Your task to perform on an android device: Clear the cart on ebay.com. Image 0: 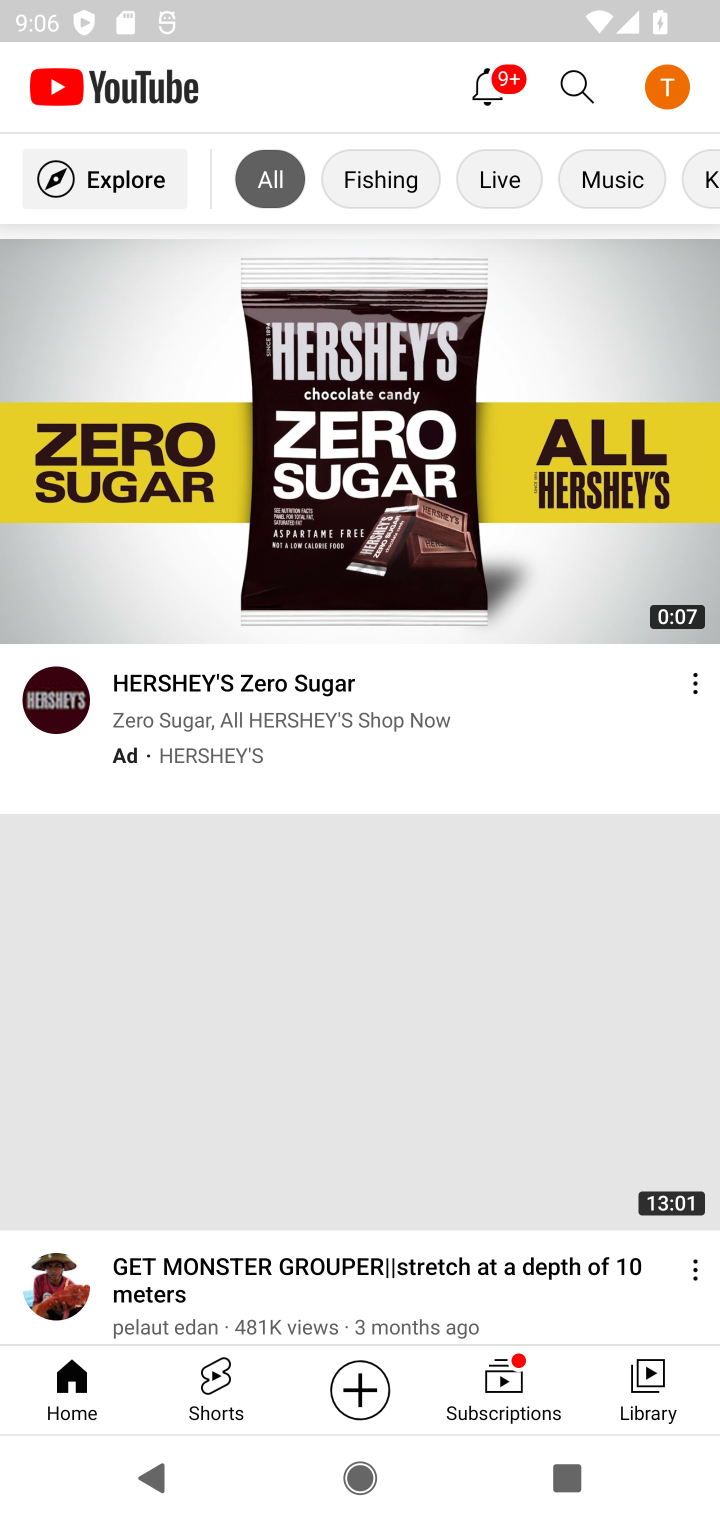
Step 0: press home button
Your task to perform on an android device: Clear the cart on ebay.com. Image 1: 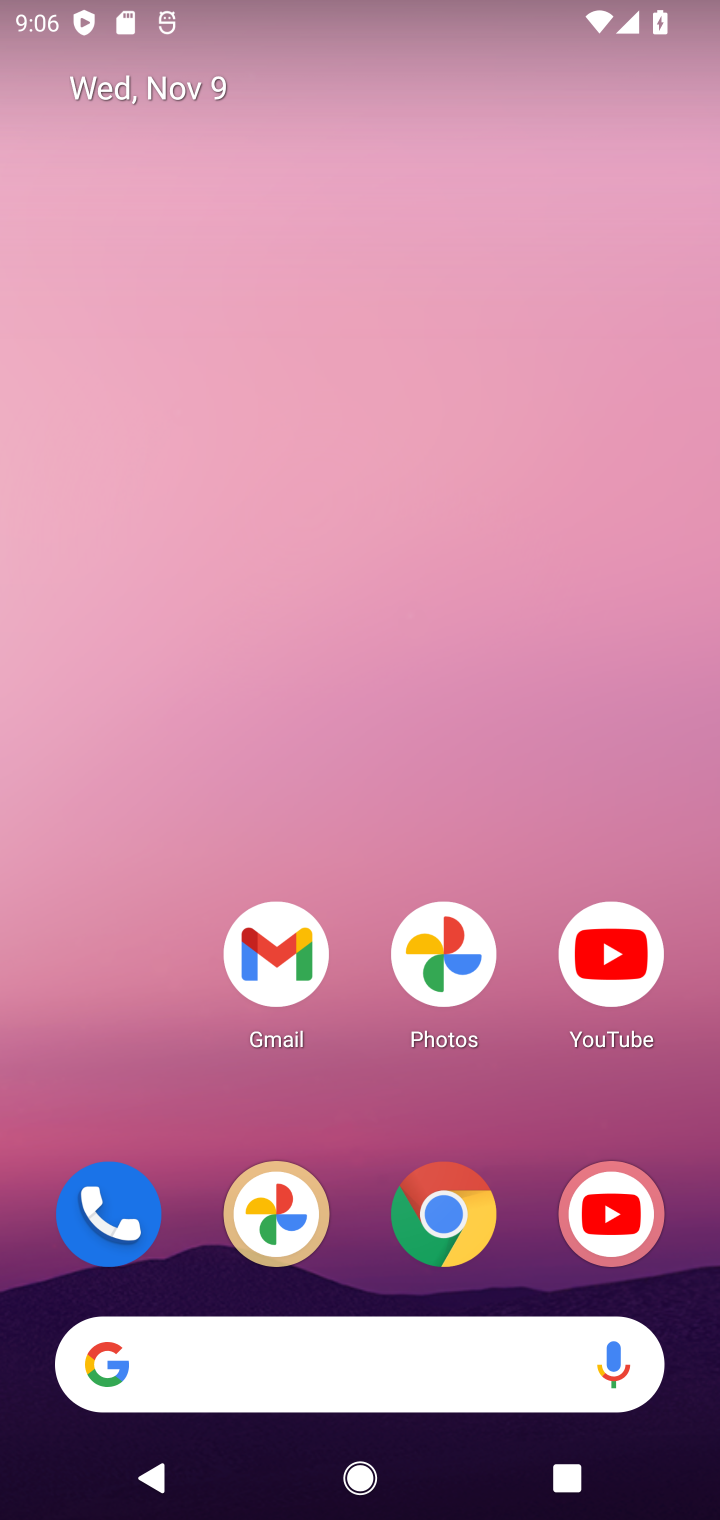
Step 1: drag from (320, 711) to (358, 122)
Your task to perform on an android device: Clear the cart on ebay.com. Image 2: 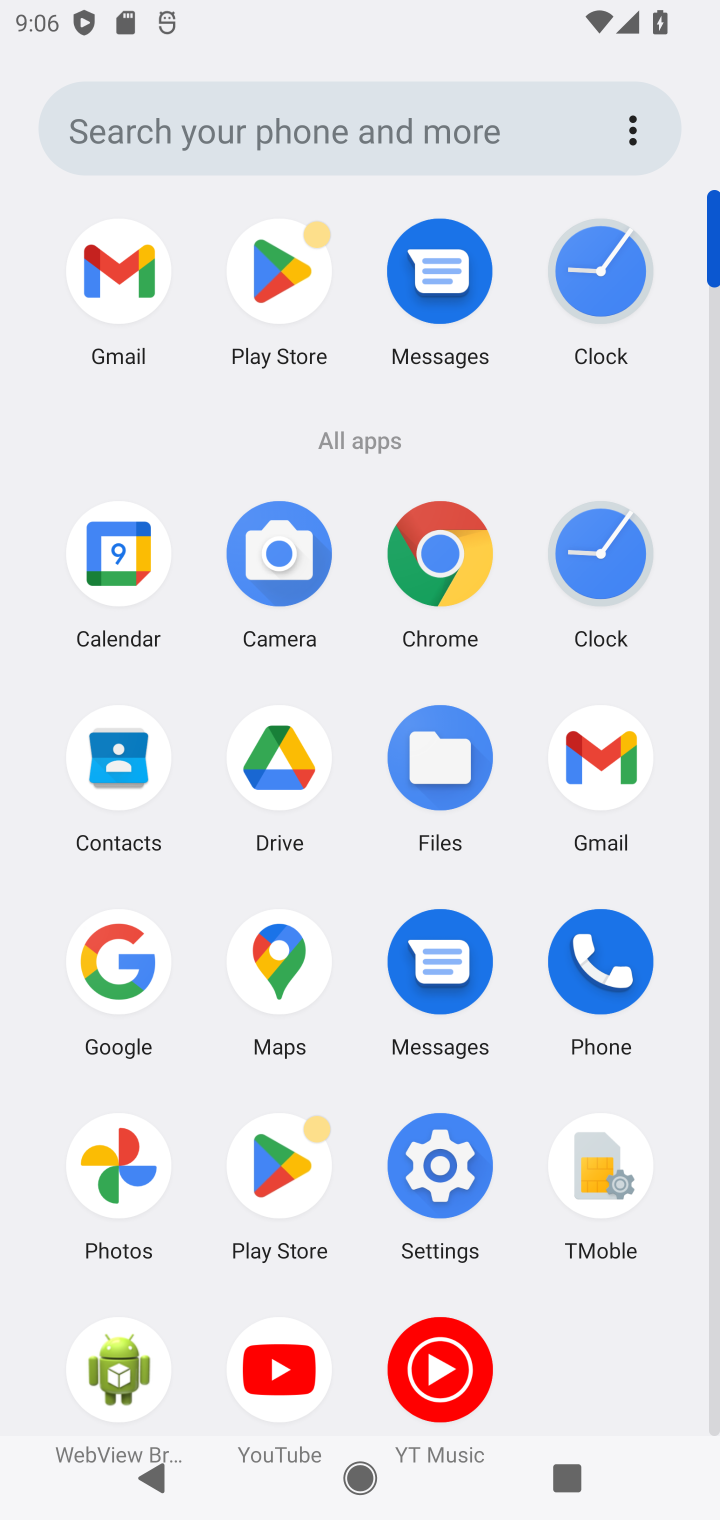
Step 2: click (440, 562)
Your task to perform on an android device: Clear the cart on ebay.com. Image 3: 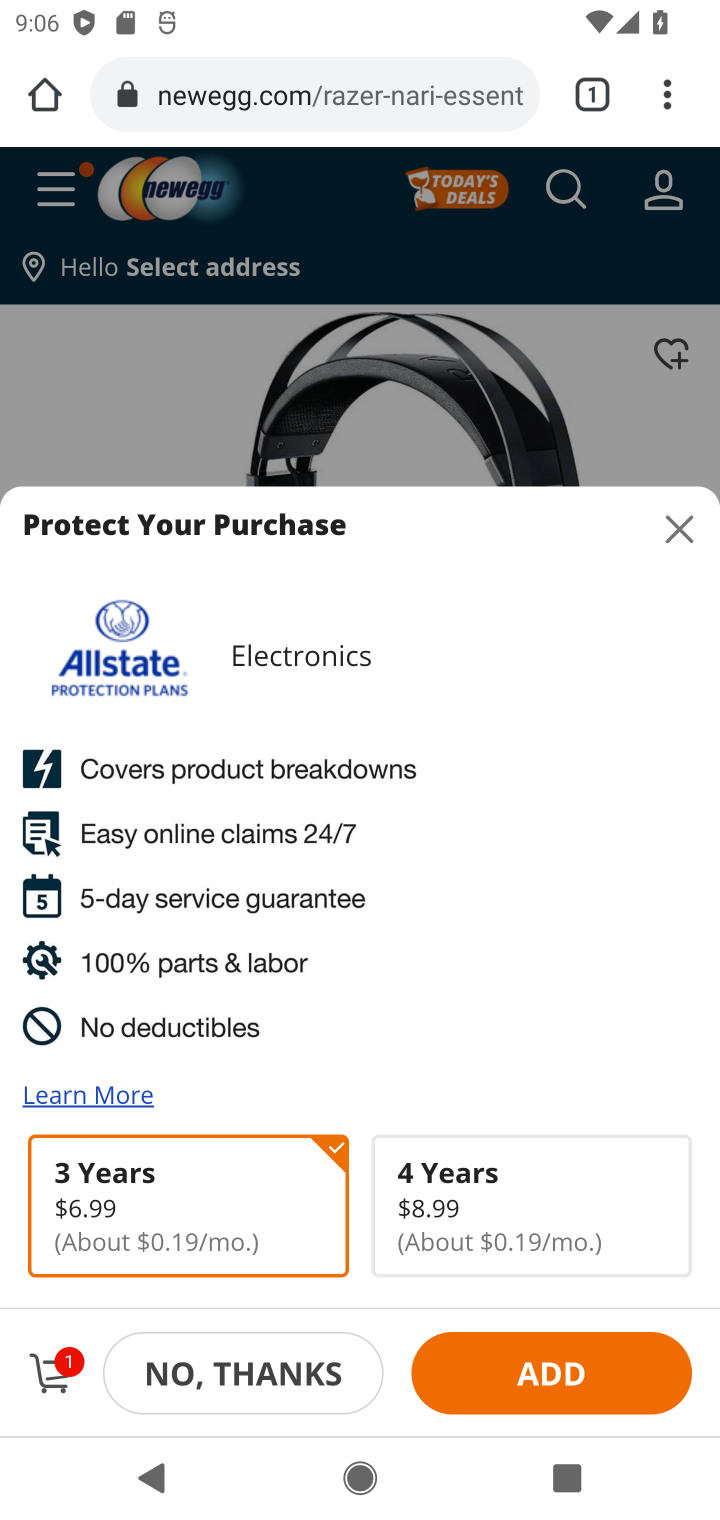
Step 3: click (355, 80)
Your task to perform on an android device: Clear the cart on ebay.com. Image 4: 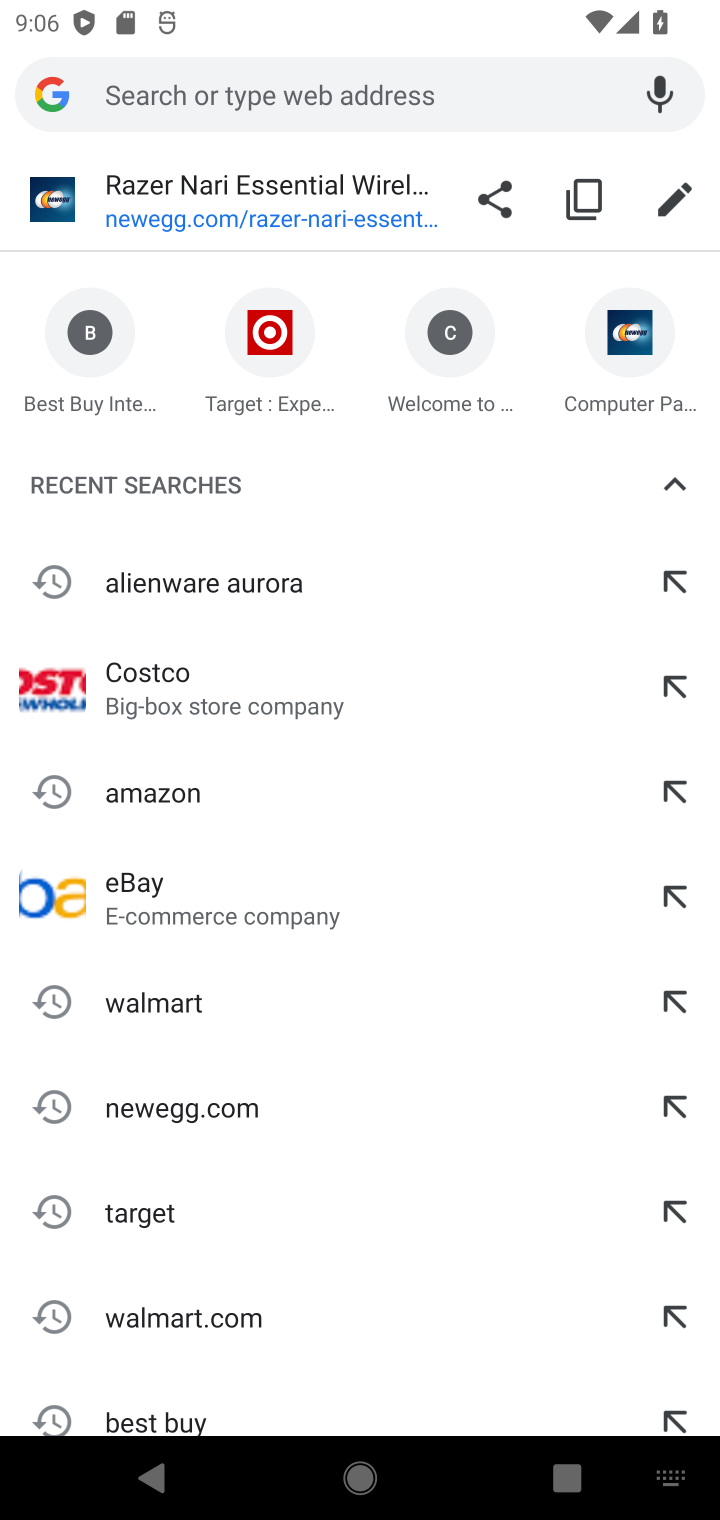
Step 4: type "ebay.com"
Your task to perform on an android device: Clear the cart on ebay.com. Image 5: 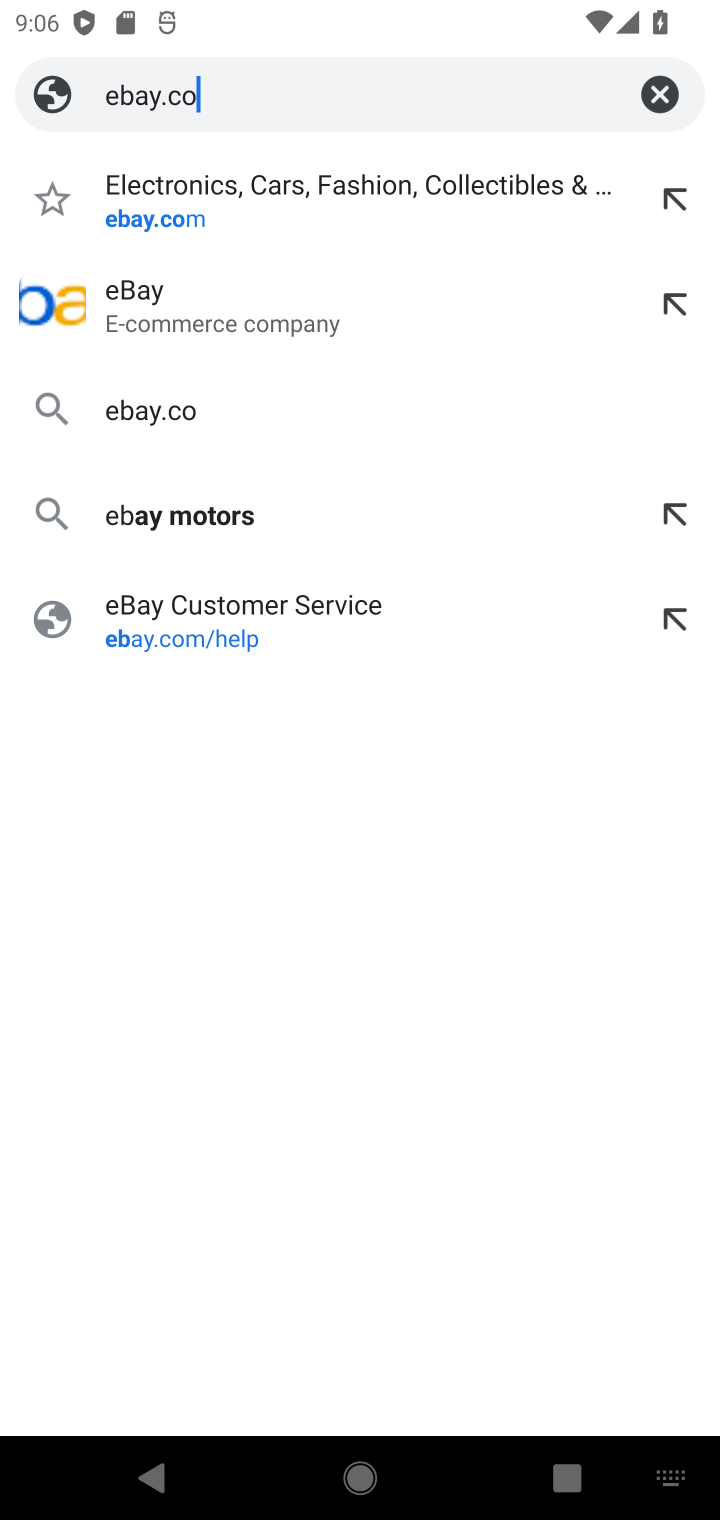
Step 5: press enter
Your task to perform on an android device: Clear the cart on ebay.com. Image 6: 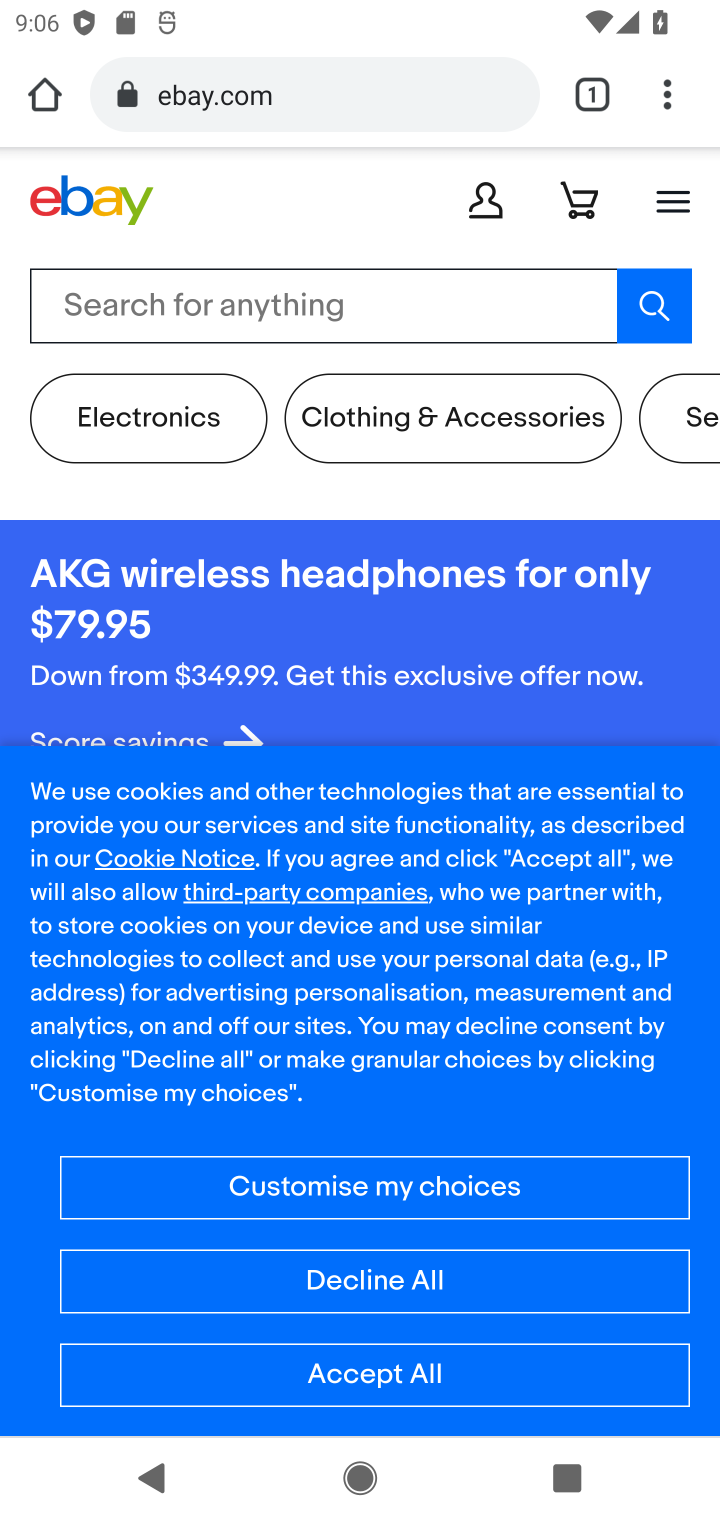
Step 6: click (589, 193)
Your task to perform on an android device: Clear the cart on ebay.com. Image 7: 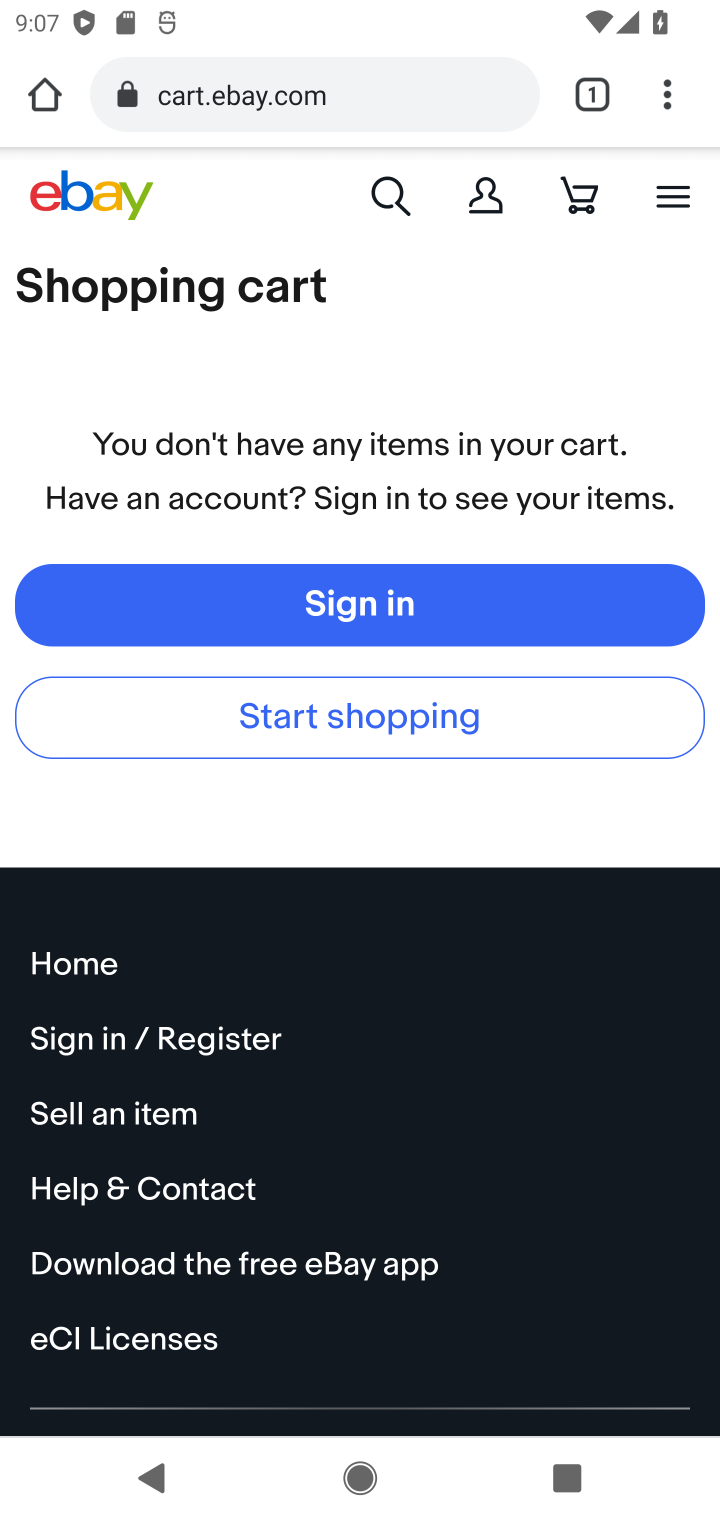
Step 7: task complete